Your task to perform on an android device: change notifications settings Image 0: 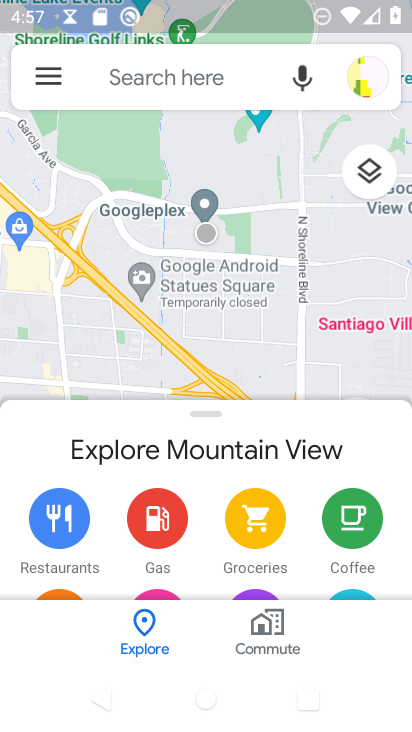
Step 0: press home button
Your task to perform on an android device: change notifications settings Image 1: 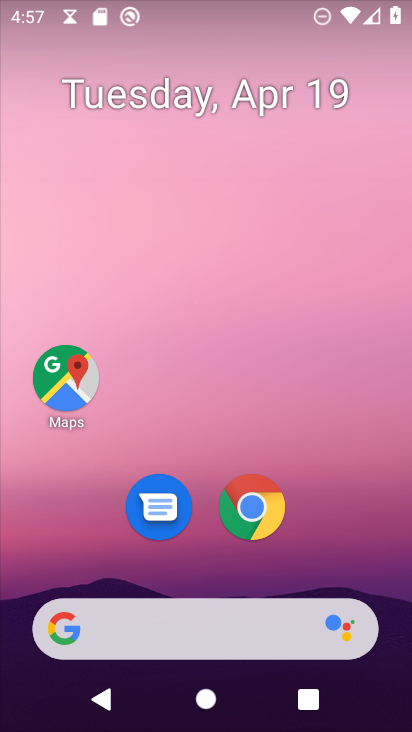
Step 1: drag from (330, 561) to (379, 29)
Your task to perform on an android device: change notifications settings Image 2: 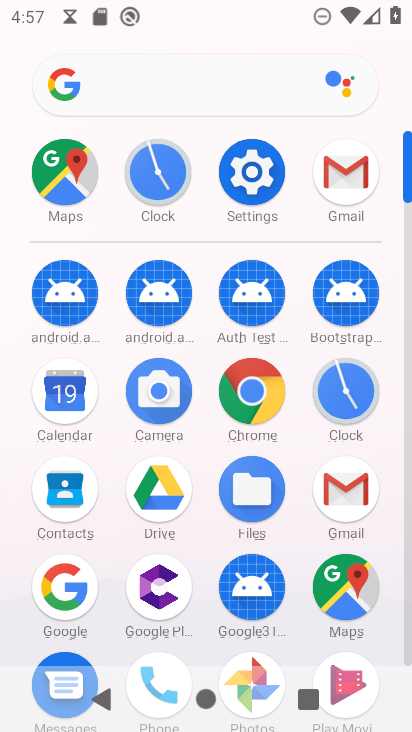
Step 2: click (229, 185)
Your task to perform on an android device: change notifications settings Image 3: 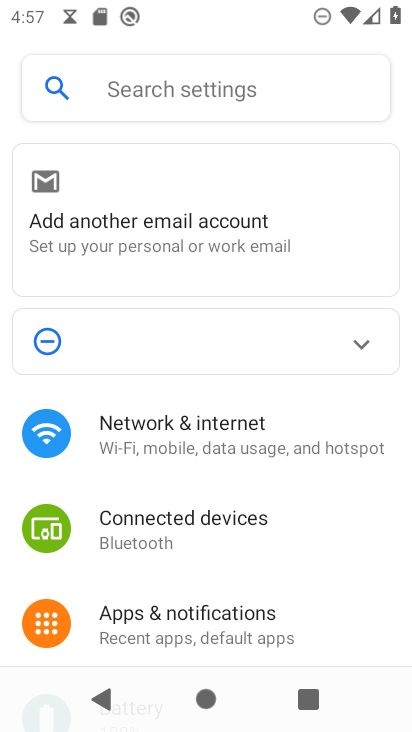
Step 3: click (226, 607)
Your task to perform on an android device: change notifications settings Image 4: 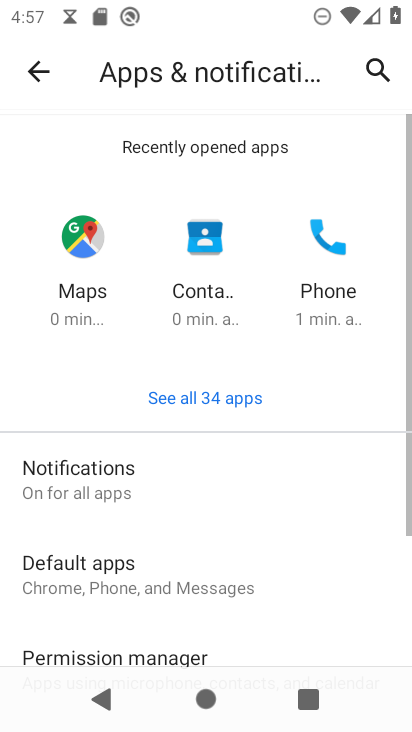
Step 4: click (184, 482)
Your task to perform on an android device: change notifications settings Image 5: 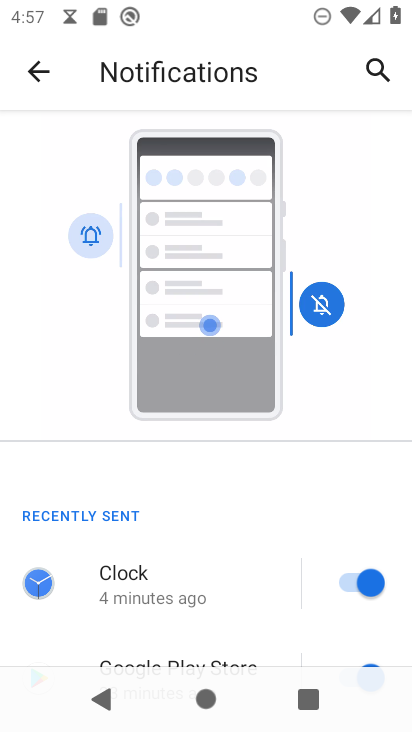
Step 5: drag from (230, 568) to (271, 173)
Your task to perform on an android device: change notifications settings Image 6: 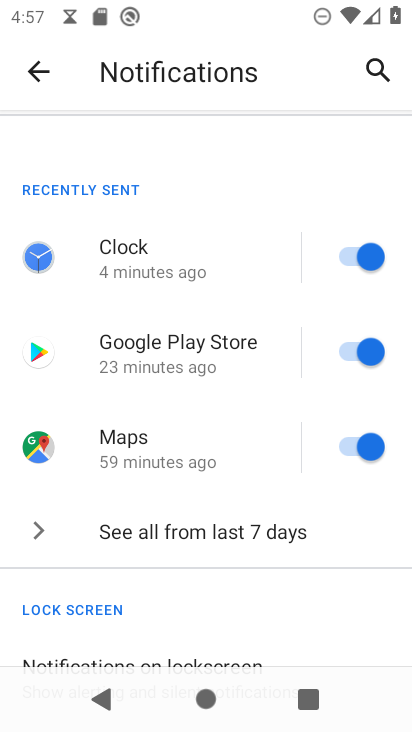
Step 6: click (275, 528)
Your task to perform on an android device: change notifications settings Image 7: 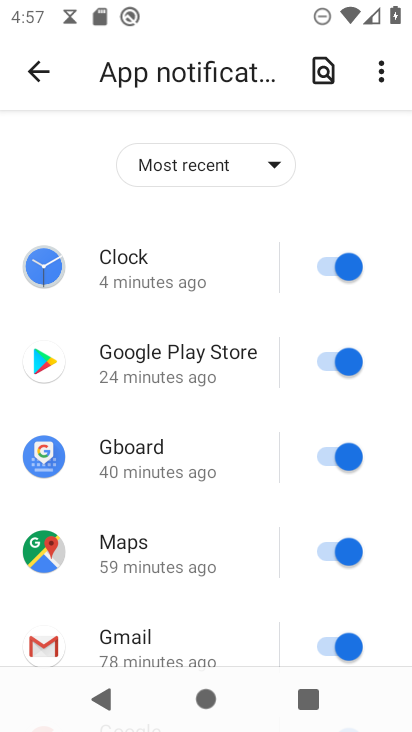
Step 7: click (318, 246)
Your task to perform on an android device: change notifications settings Image 8: 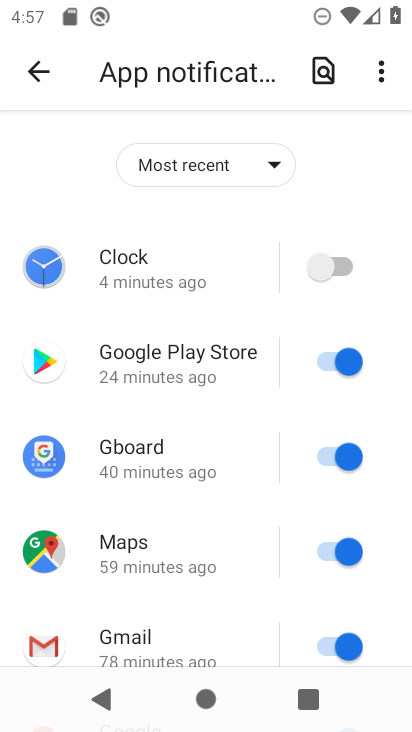
Step 8: click (344, 367)
Your task to perform on an android device: change notifications settings Image 9: 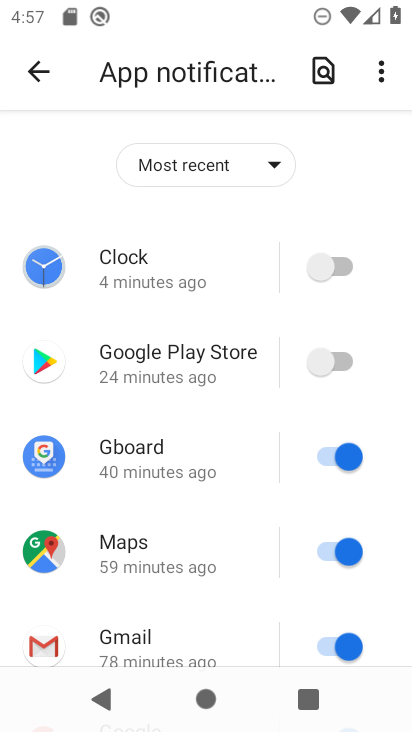
Step 9: click (354, 439)
Your task to perform on an android device: change notifications settings Image 10: 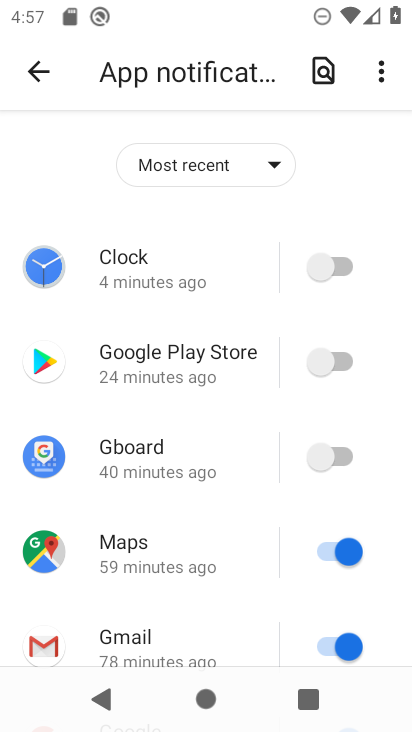
Step 10: click (358, 543)
Your task to perform on an android device: change notifications settings Image 11: 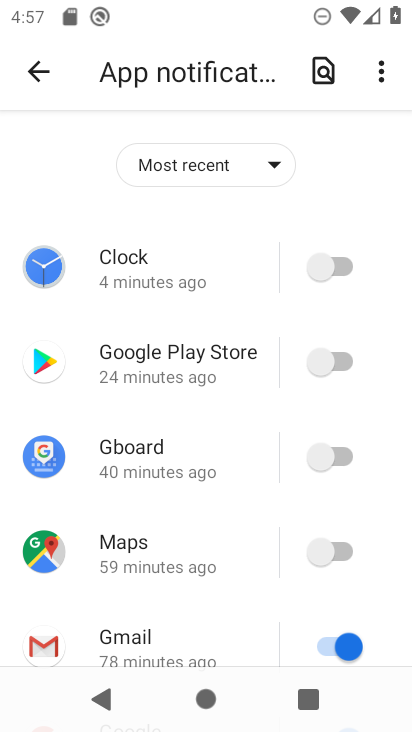
Step 11: click (334, 650)
Your task to perform on an android device: change notifications settings Image 12: 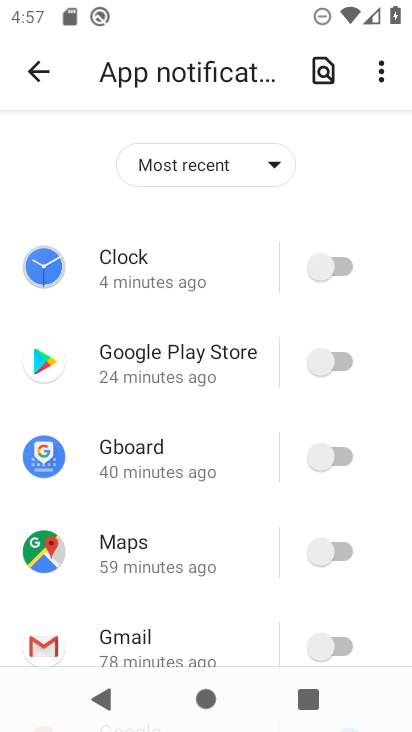
Step 12: drag from (211, 645) to (166, 214)
Your task to perform on an android device: change notifications settings Image 13: 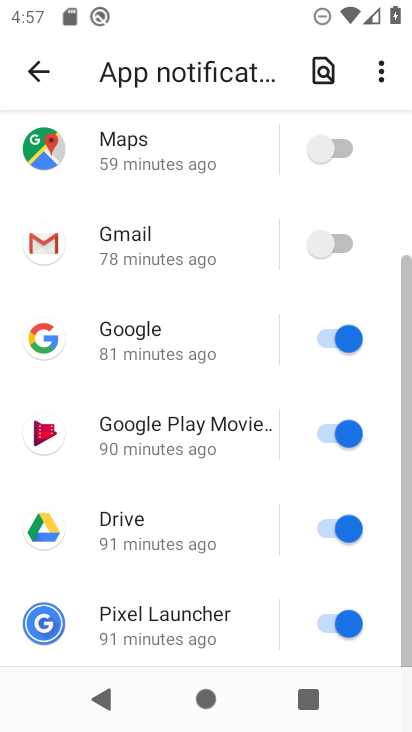
Step 13: click (329, 354)
Your task to perform on an android device: change notifications settings Image 14: 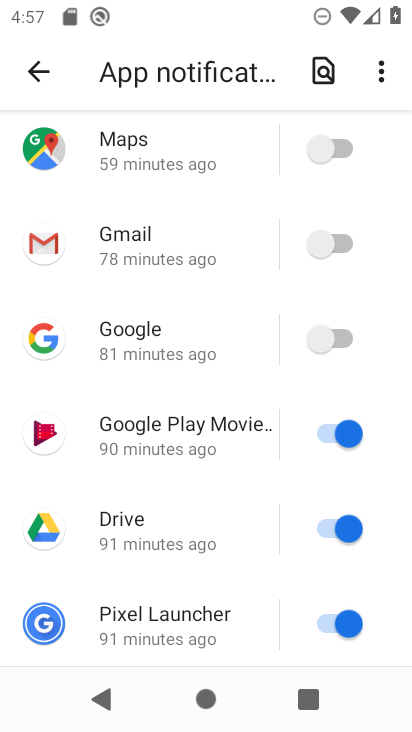
Step 14: click (344, 429)
Your task to perform on an android device: change notifications settings Image 15: 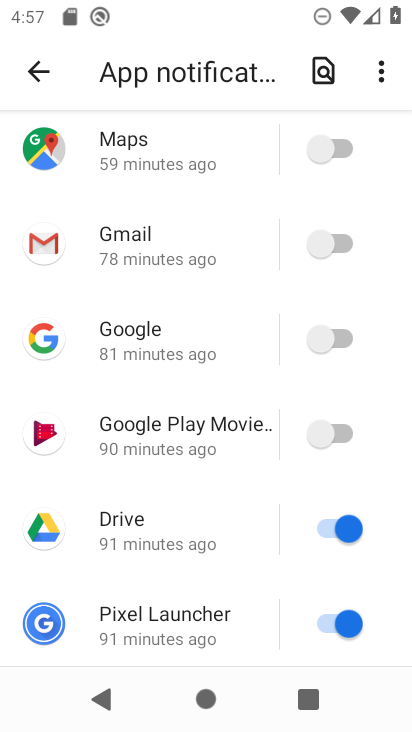
Step 15: click (338, 526)
Your task to perform on an android device: change notifications settings Image 16: 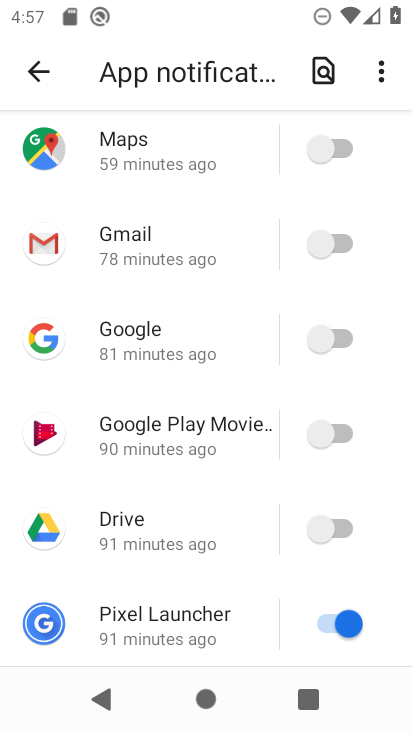
Step 16: click (357, 624)
Your task to perform on an android device: change notifications settings Image 17: 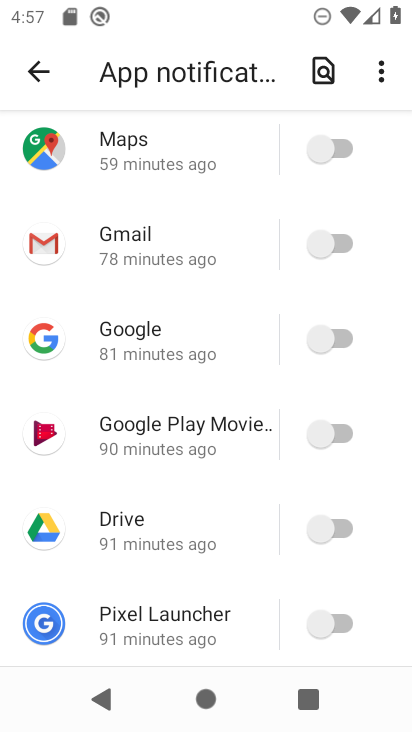
Step 17: drag from (174, 641) to (132, 361)
Your task to perform on an android device: change notifications settings Image 18: 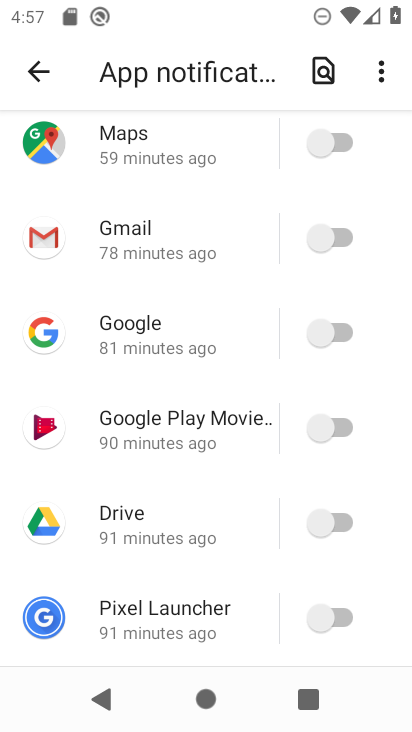
Step 18: click (28, 66)
Your task to perform on an android device: change notifications settings Image 19: 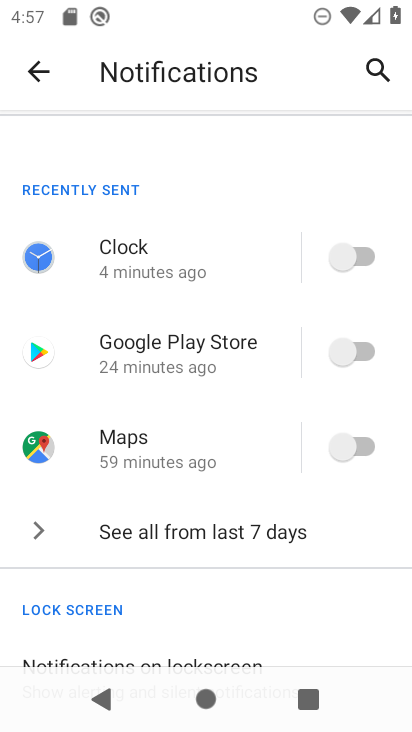
Step 19: drag from (162, 624) to (160, 417)
Your task to perform on an android device: change notifications settings Image 20: 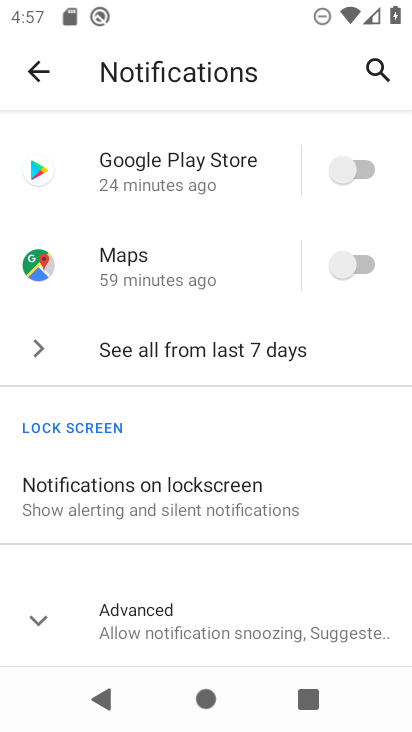
Step 20: click (130, 509)
Your task to perform on an android device: change notifications settings Image 21: 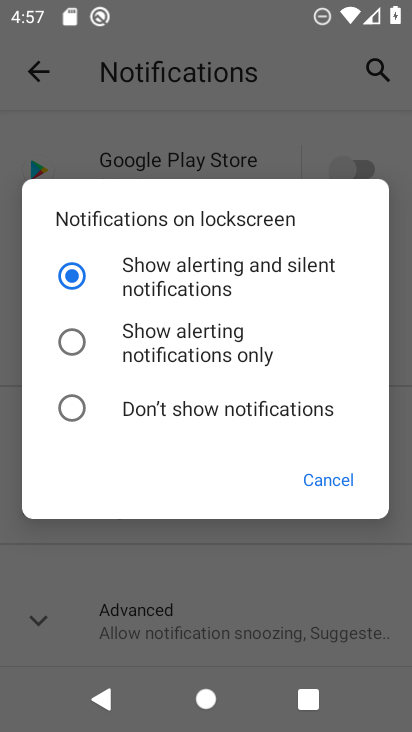
Step 21: click (161, 343)
Your task to perform on an android device: change notifications settings Image 22: 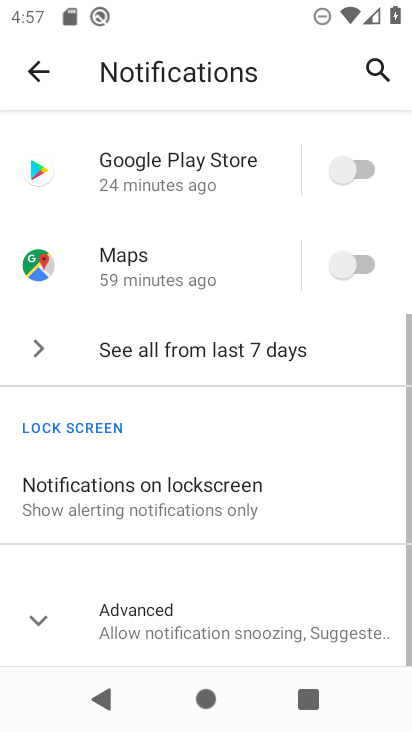
Step 22: drag from (189, 487) to (210, 227)
Your task to perform on an android device: change notifications settings Image 23: 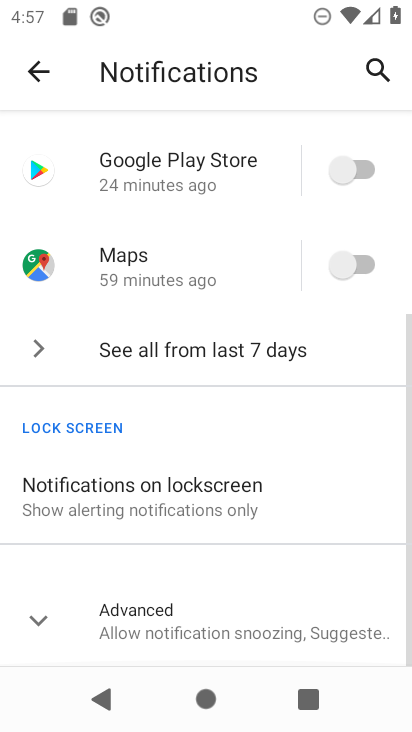
Step 23: click (239, 607)
Your task to perform on an android device: change notifications settings Image 24: 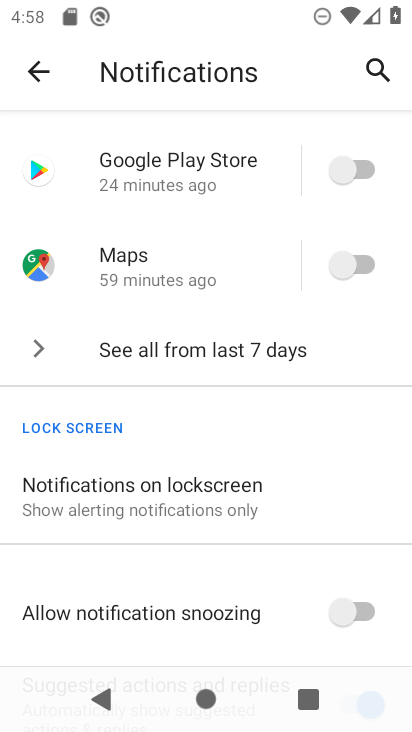
Step 24: drag from (65, 646) to (129, 223)
Your task to perform on an android device: change notifications settings Image 25: 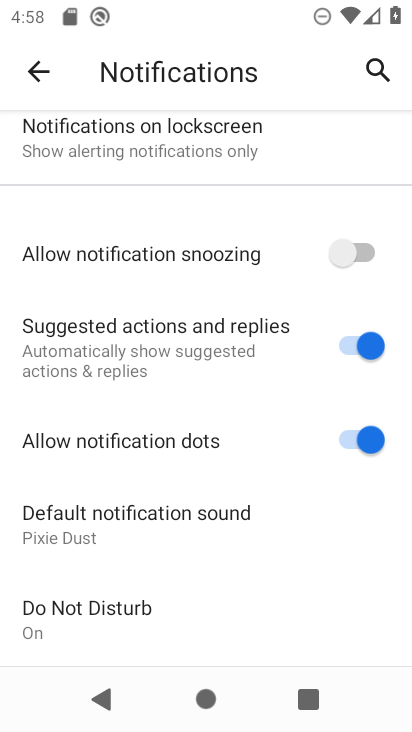
Step 25: click (341, 275)
Your task to perform on an android device: change notifications settings Image 26: 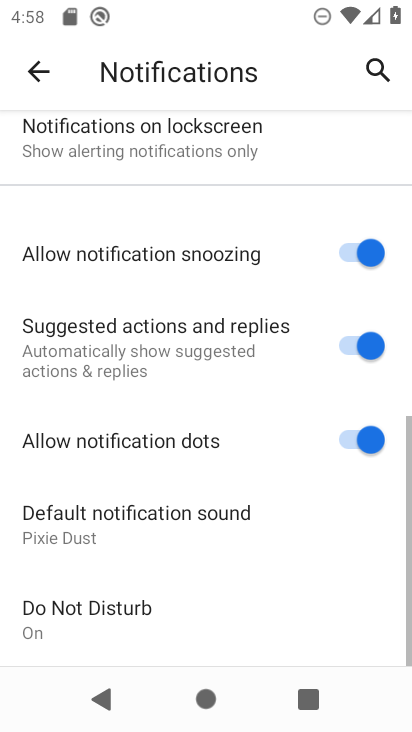
Step 26: click (346, 337)
Your task to perform on an android device: change notifications settings Image 27: 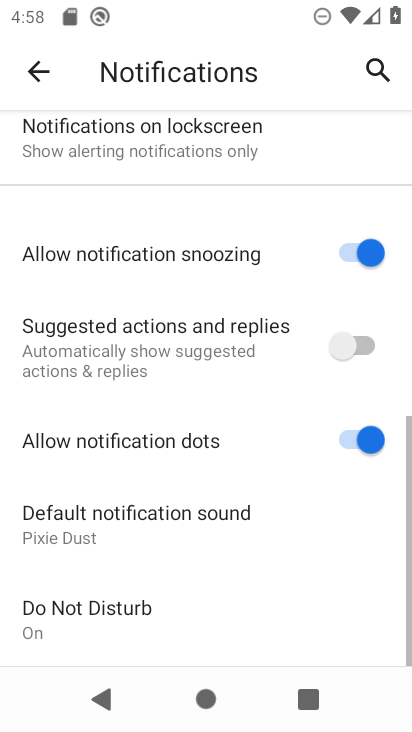
Step 27: click (355, 443)
Your task to perform on an android device: change notifications settings Image 28: 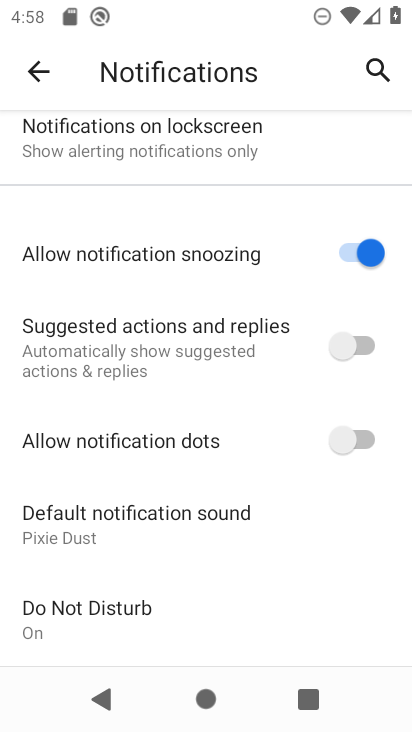
Step 28: task complete